Your task to perform on an android device: Search for Mexican restaurants on Maps Image 0: 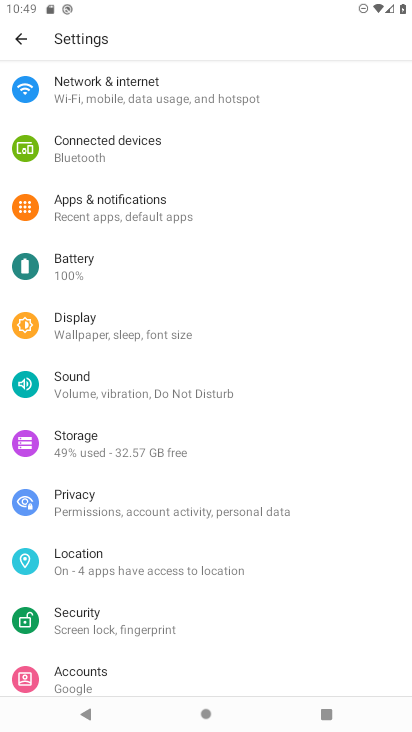
Step 0: press home button
Your task to perform on an android device: Search for Mexican restaurants on Maps Image 1: 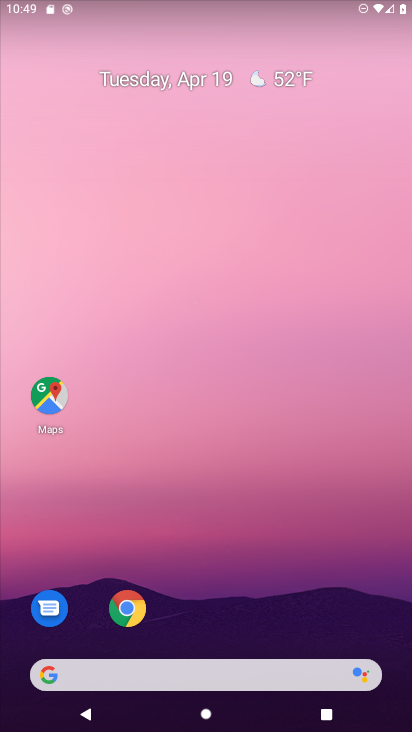
Step 1: click (66, 385)
Your task to perform on an android device: Search for Mexican restaurants on Maps Image 2: 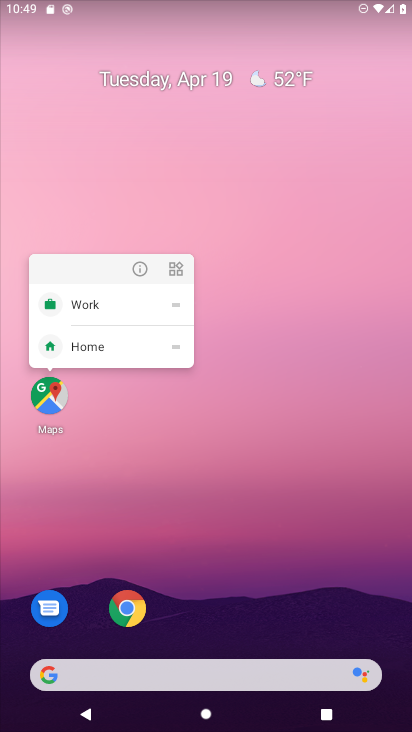
Step 2: click (52, 394)
Your task to perform on an android device: Search for Mexican restaurants on Maps Image 3: 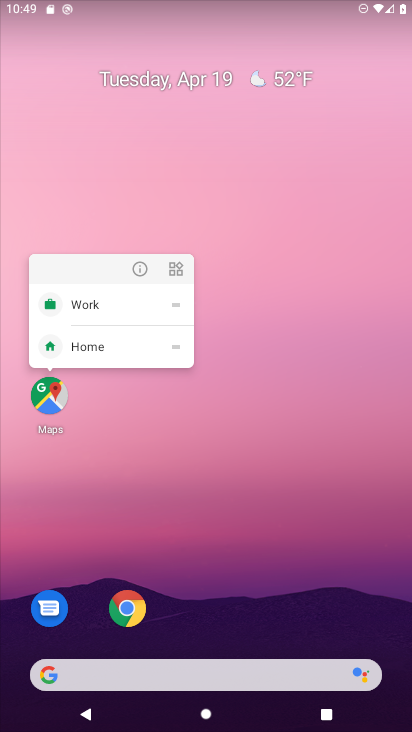
Step 3: click (52, 394)
Your task to perform on an android device: Search for Mexican restaurants on Maps Image 4: 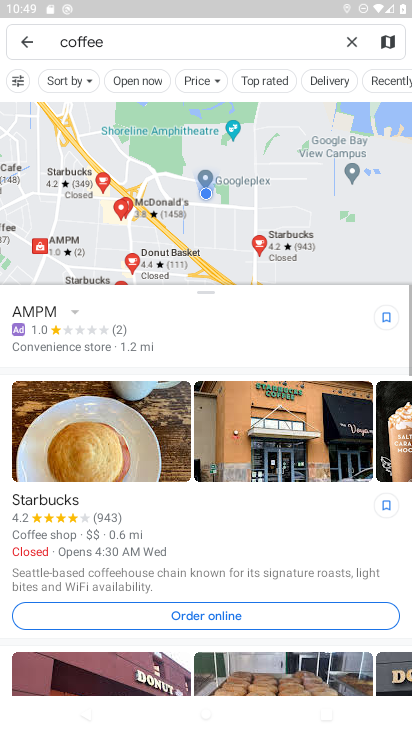
Step 4: click (349, 37)
Your task to perform on an android device: Search for Mexican restaurants on Maps Image 5: 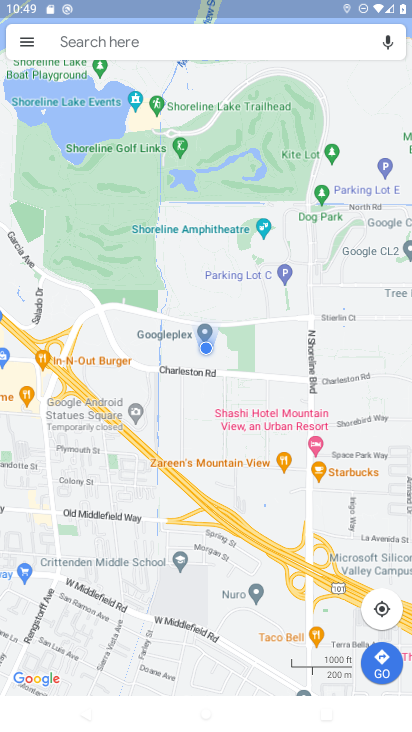
Step 5: click (260, 49)
Your task to perform on an android device: Search for Mexican restaurants on Maps Image 6: 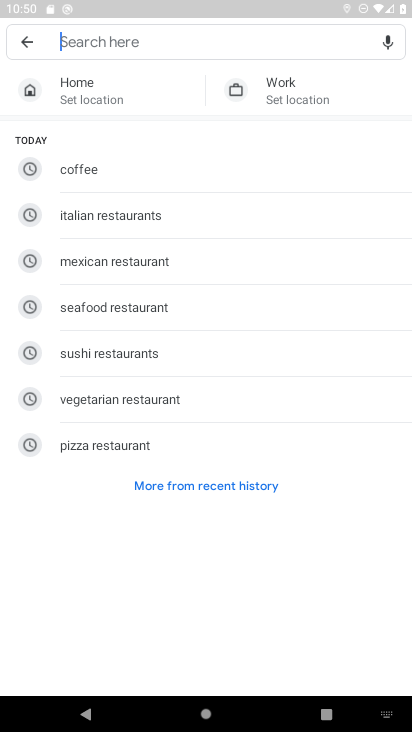
Step 6: click (94, 266)
Your task to perform on an android device: Search for Mexican restaurants on Maps Image 7: 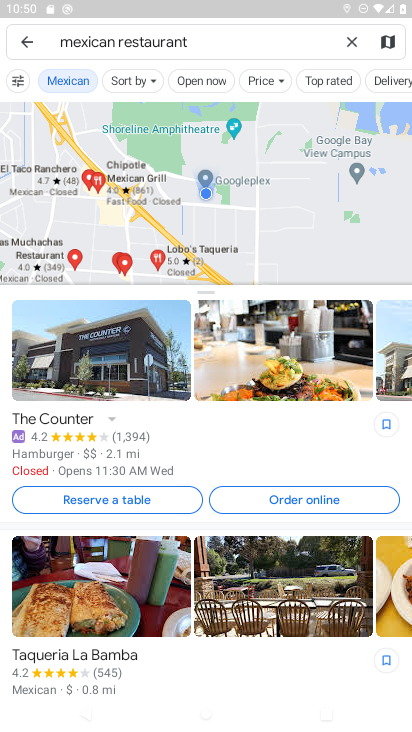
Step 7: task complete